Your task to perform on an android device: Search for Italian restaurants on Maps Image 0: 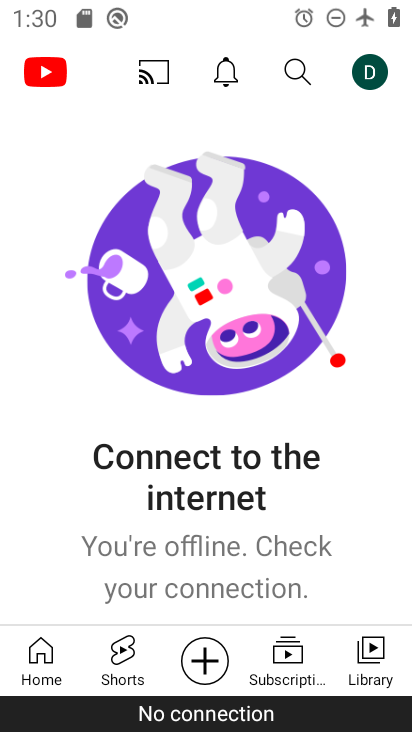
Step 0: press home button
Your task to perform on an android device: Search for Italian restaurants on Maps Image 1: 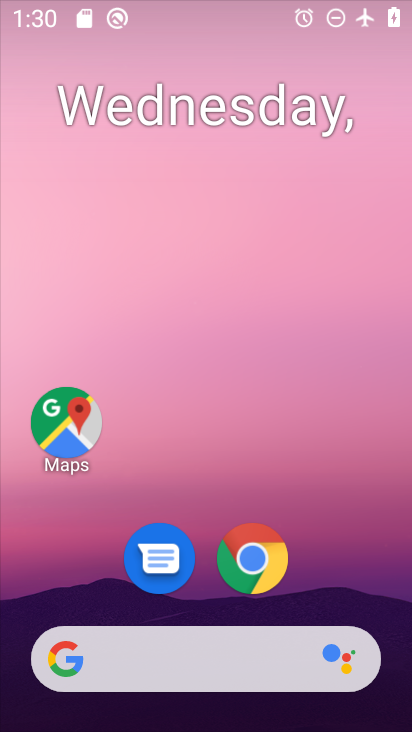
Step 1: drag from (401, 677) to (268, 75)
Your task to perform on an android device: Search for Italian restaurants on Maps Image 2: 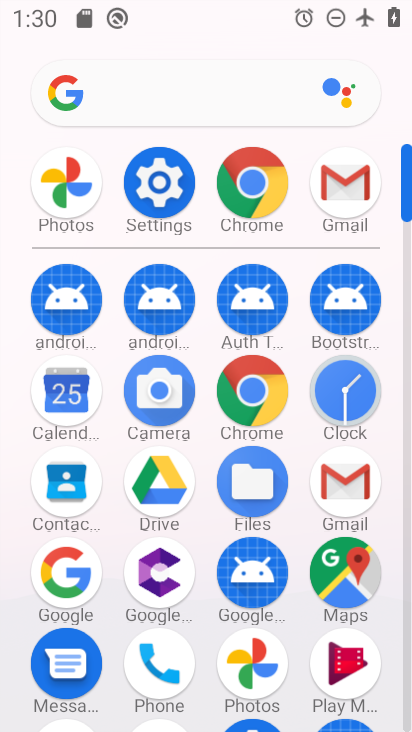
Step 2: click (353, 595)
Your task to perform on an android device: Search for Italian restaurants on Maps Image 3: 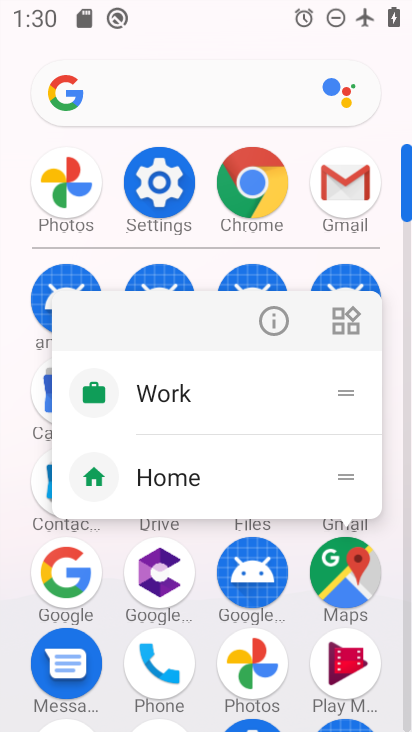
Step 3: click (353, 595)
Your task to perform on an android device: Search for Italian restaurants on Maps Image 4: 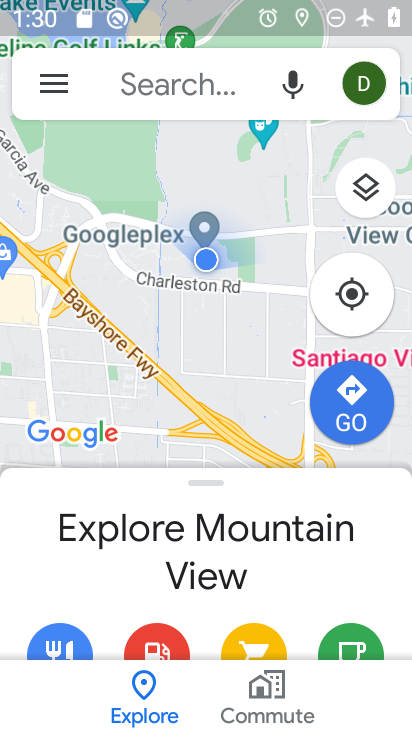
Step 4: click (182, 84)
Your task to perform on an android device: Search for Italian restaurants on Maps Image 5: 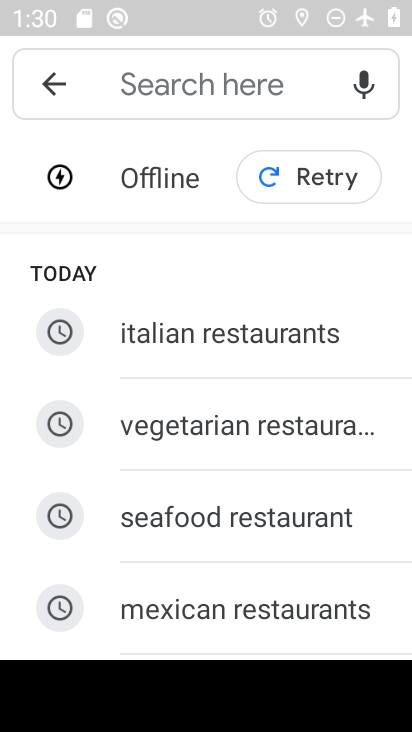
Step 5: click (210, 345)
Your task to perform on an android device: Search for Italian restaurants on Maps Image 6: 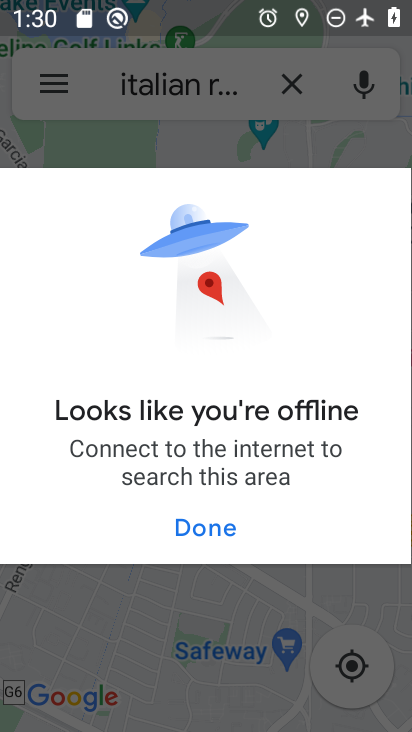
Step 6: task complete